Your task to perform on an android device: Go to accessibility settings Image 0: 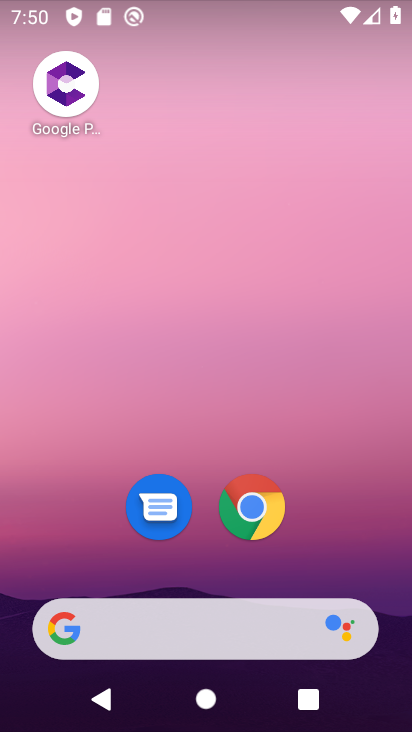
Step 0: drag from (327, 579) to (290, 129)
Your task to perform on an android device: Go to accessibility settings Image 1: 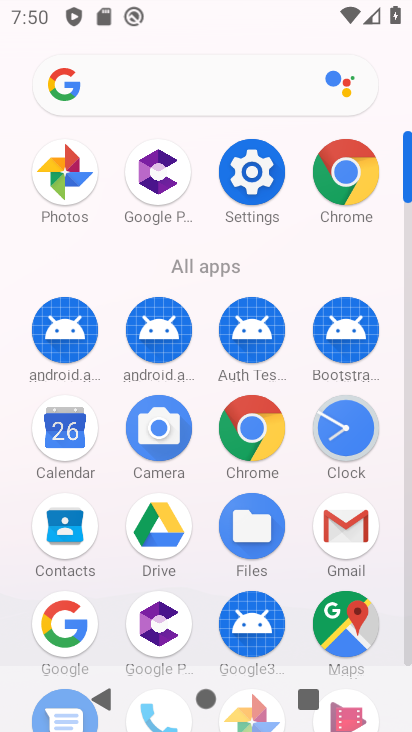
Step 1: click (263, 181)
Your task to perform on an android device: Go to accessibility settings Image 2: 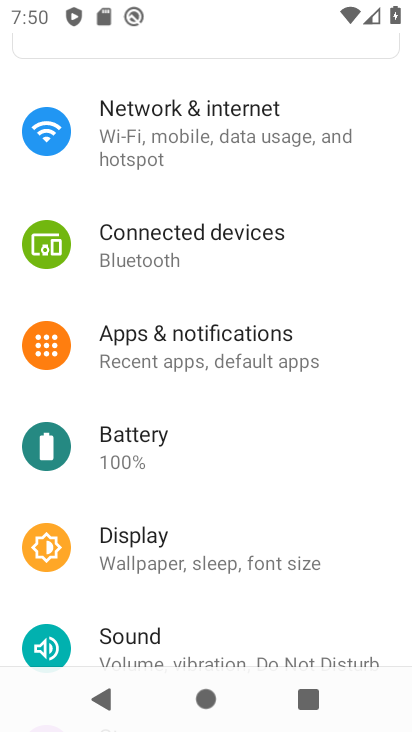
Step 2: drag from (270, 592) to (241, 181)
Your task to perform on an android device: Go to accessibility settings Image 3: 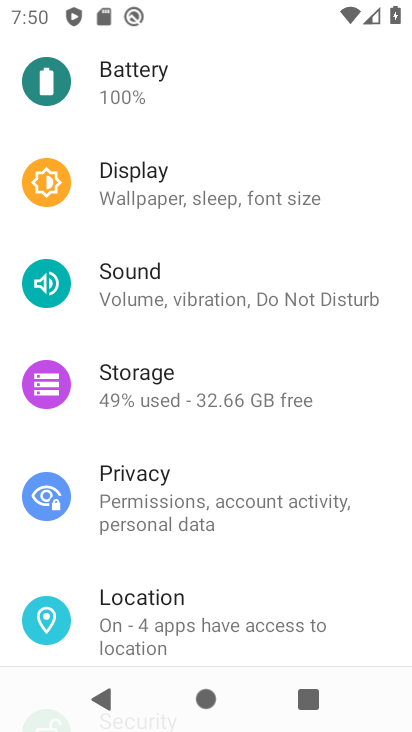
Step 3: click (210, 318)
Your task to perform on an android device: Go to accessibility settings Image 4: 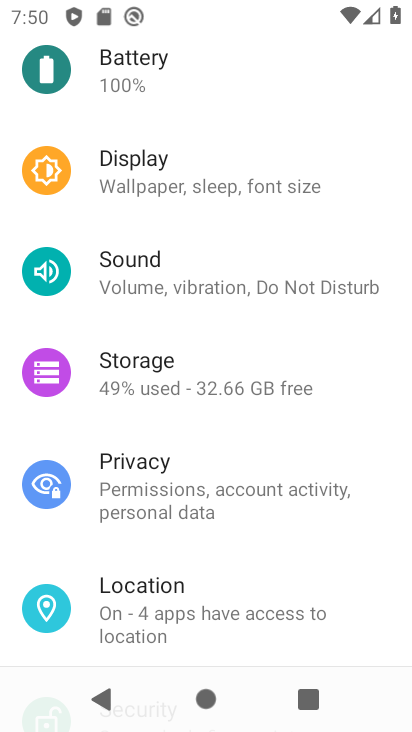
Step 4: drag from (159, 553) to (154, 244)
Your task to perform on an android device: Go to accessibility settings Image 5: 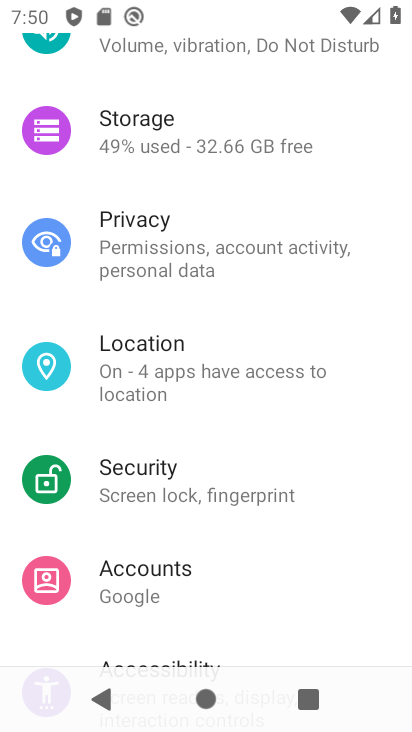
Step 5: drag from (162, 615) to (164, 365)
Your task to perform on an android device: Go to accessibility settings Image 6: 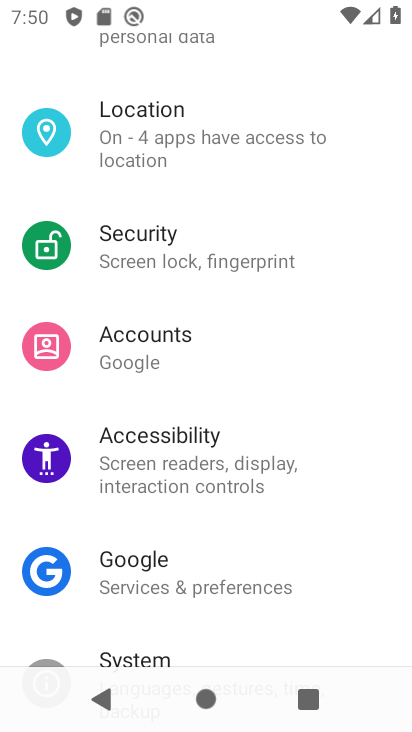
Step 6: click (176, 444)
Your task to perform on an android device: Go to accessibility settings Image 7: 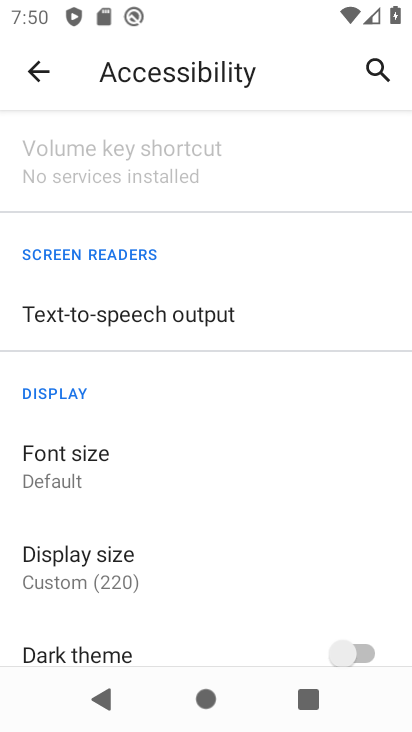
Step 7: task complete